Your task to perform on an android device: turn on location history Image 0: 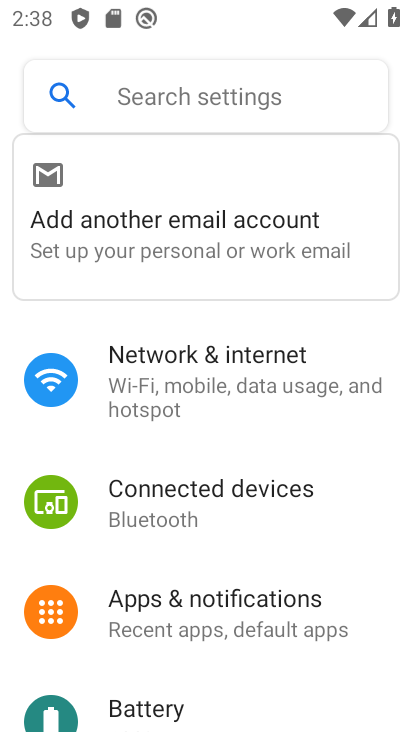
Step 0: press home button
Your task to perform on an android device: turn on location history Image 1: 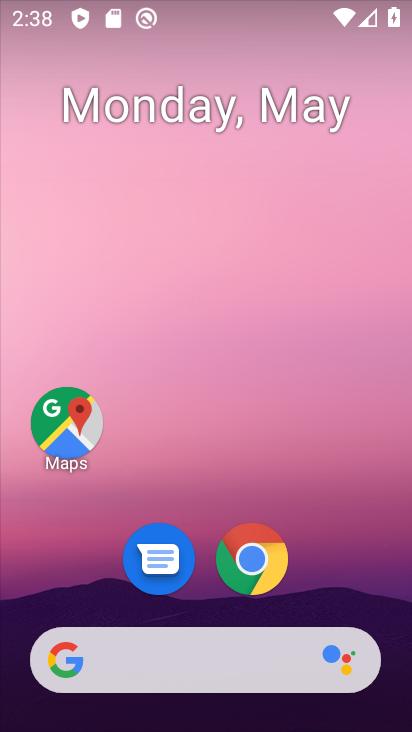
Step 1: drag from (330, 594) to (284, 49)
Your task to perform on an android device: turn on location history Image 2: 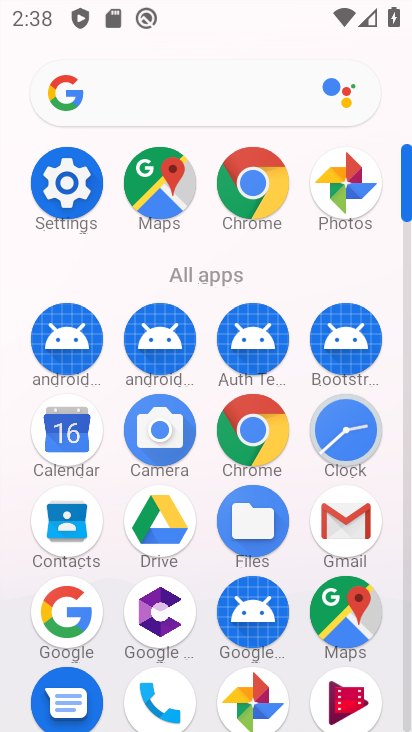
Step 2: click (175, 202)
Your task to perform on an android device: turn on location history Image 3: 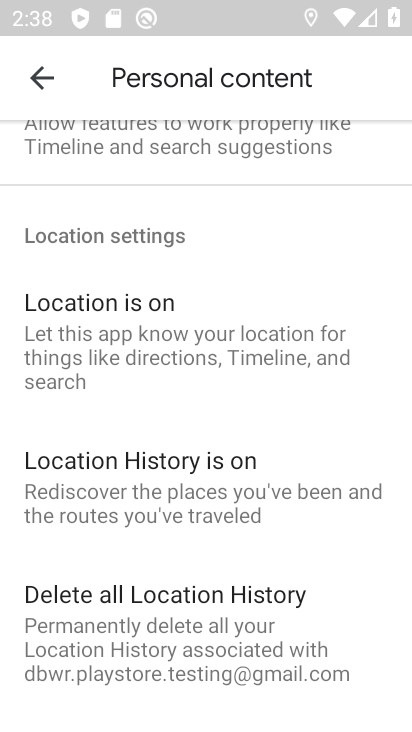
Step 3: click (278, 504)
Your task to perform on an android device: turn on location history Image 4: 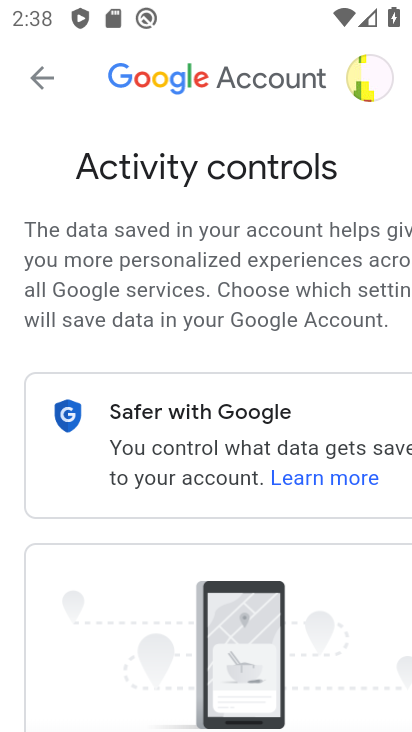
Step 4: task complete